Your task to perform on an android device: Is it going to rain tomorrow? Image 0: 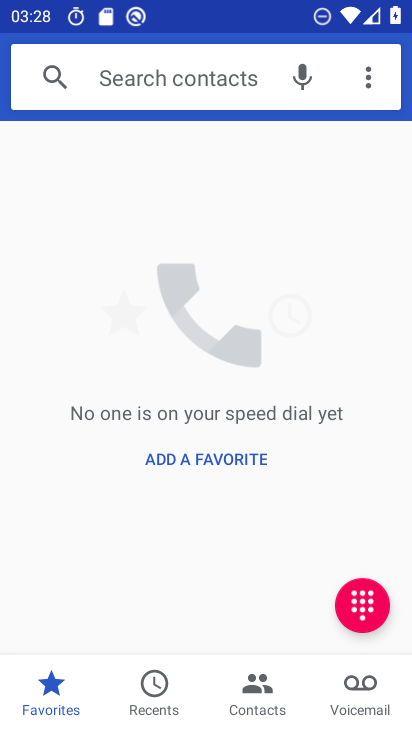
Step 0: press home button
Your task to perform on an android device: Is it going to rain tomorrow? Image 1: 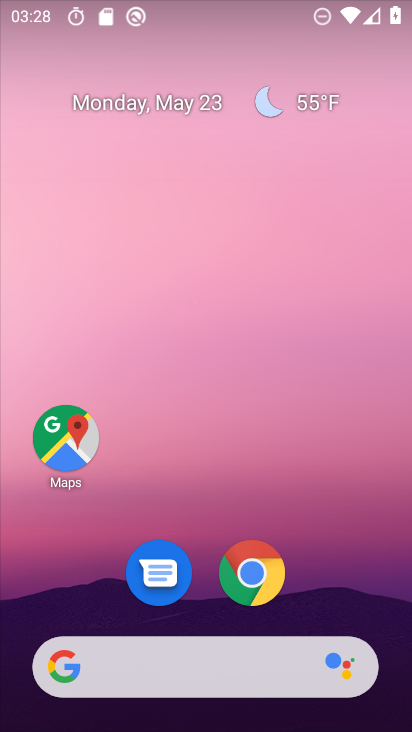
Step 1: click (199, 664)
Your task to perform on an android device: Is it going to rain tomorrow? Image 2: 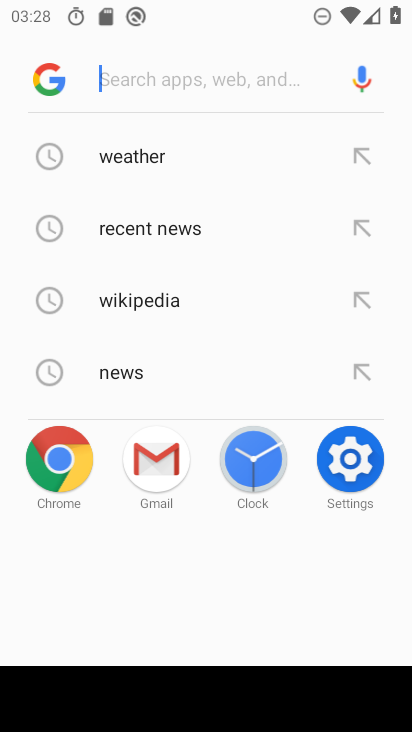
Step 2: click (167, 151)
Your task to perform on an android device: Is it going to rain tomorrow? Image 3: 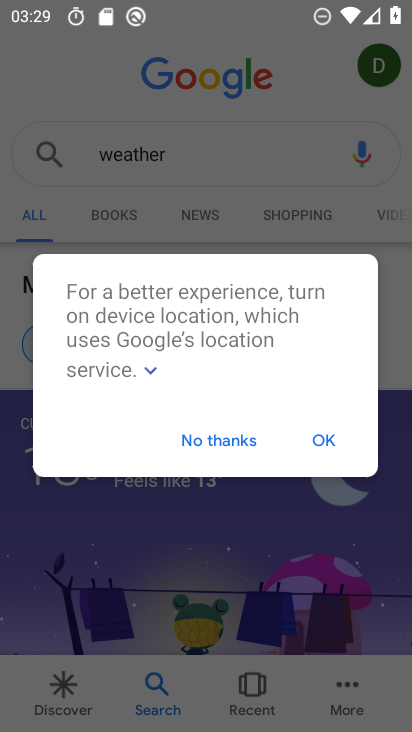
Step 3: click (327, 439)
Your task to perform on an android device: Is it going to rain tomorrow? Image 4: 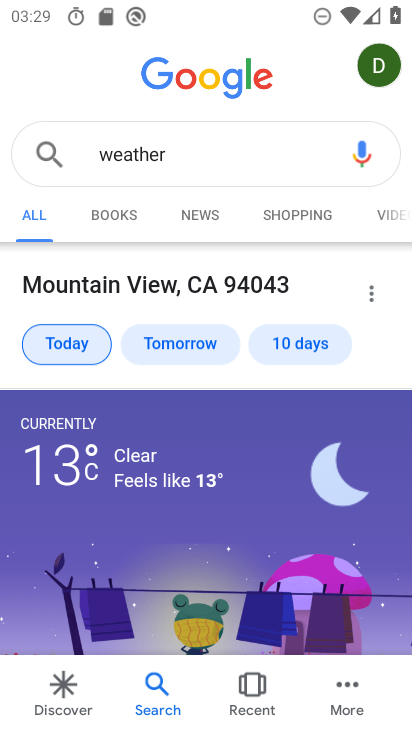
Step 4: click (190, 341)
Your task to perform on an android device: Is it going to rain tomorrow? Image 5: 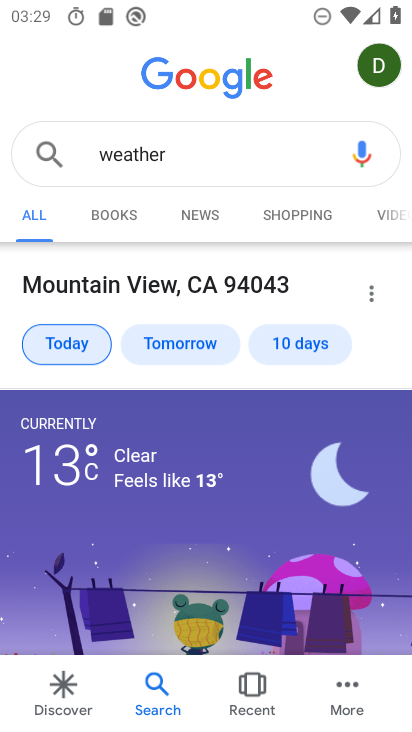
Step 5: task complete